Your task to perform on an android device: Search for "usb-a" on target.com, select the first entry, add it to the cart, then select checkout. Image 0: 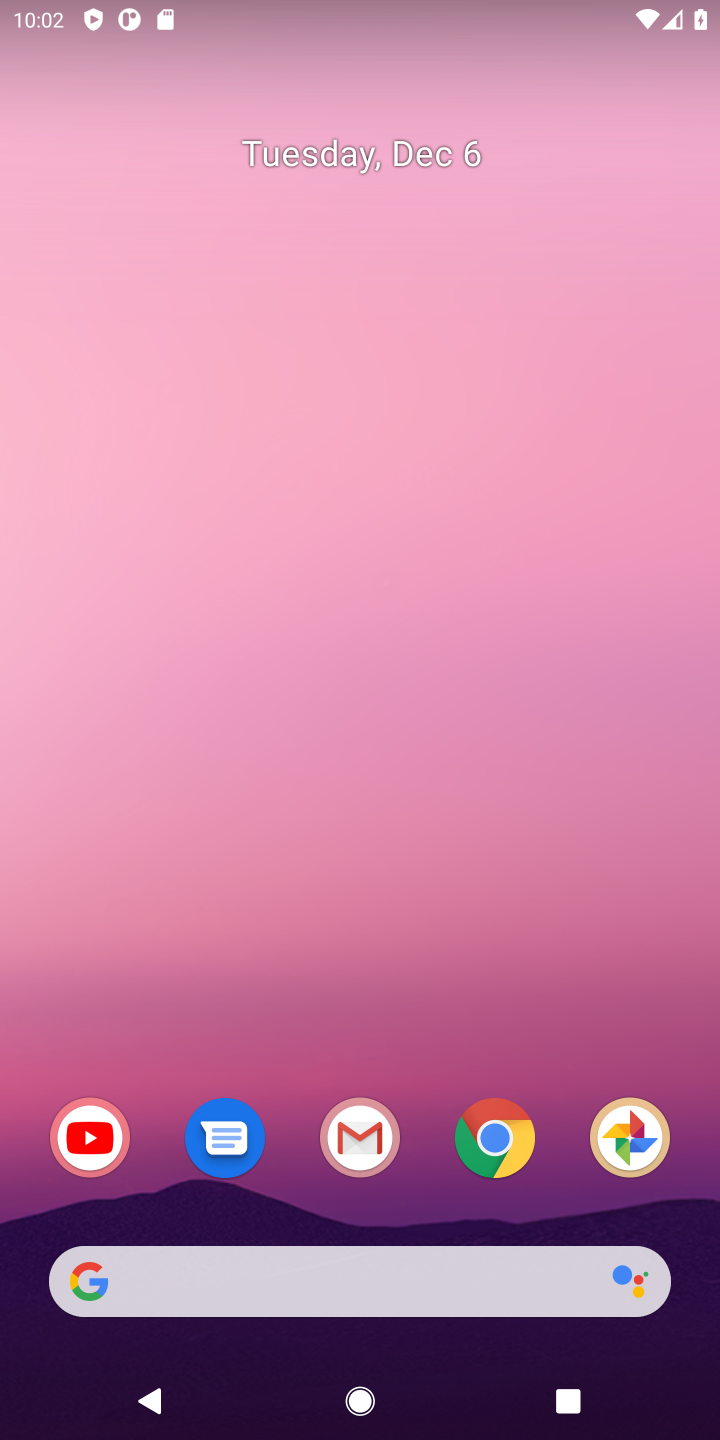
Step 0: click (510, 1140)
Your task to perform on an android device: Search for "usb-a" on target.com, select the first entry, add it to the cart, then select checkout. Image 1: 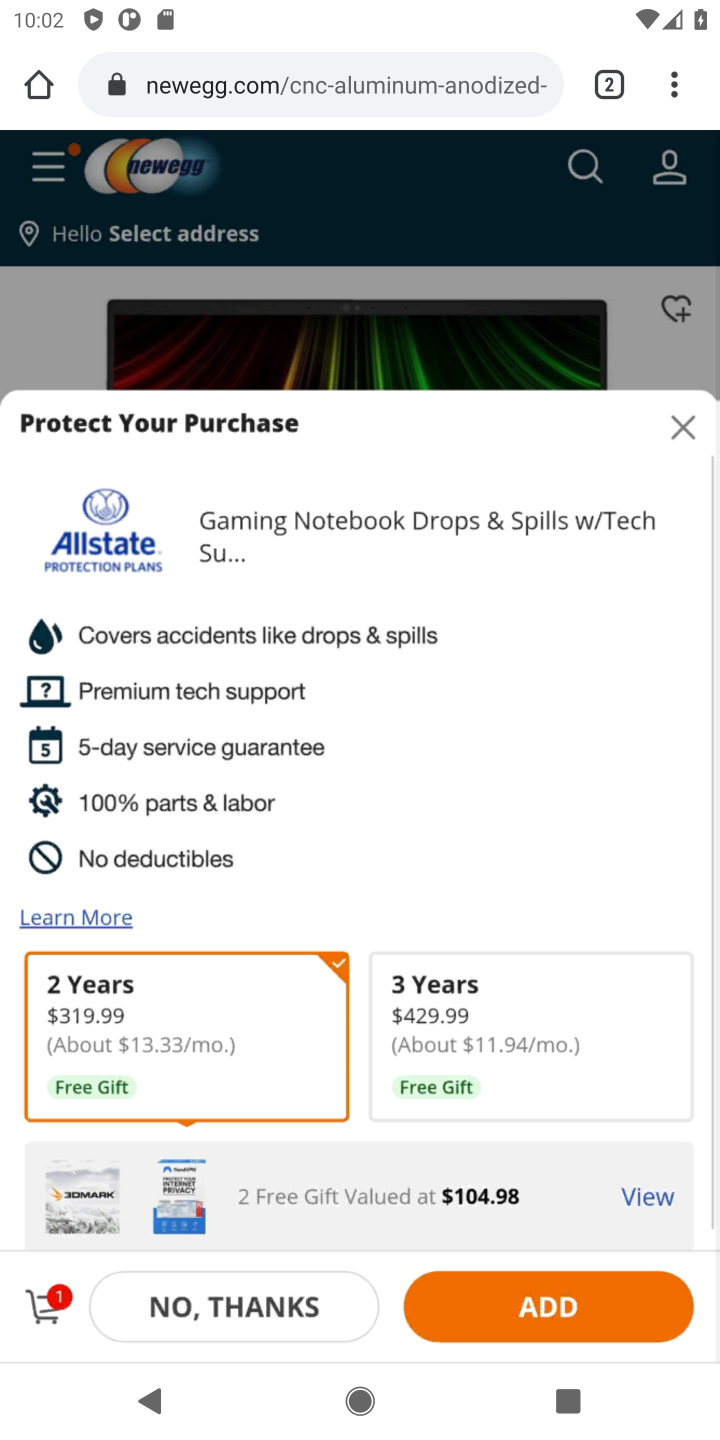
Step 1: click (278, 95)
Your task to perform on an android device: Search for "usb-a" on target.com, select the first entry, add it to the cart, then select checkout. Image 2: 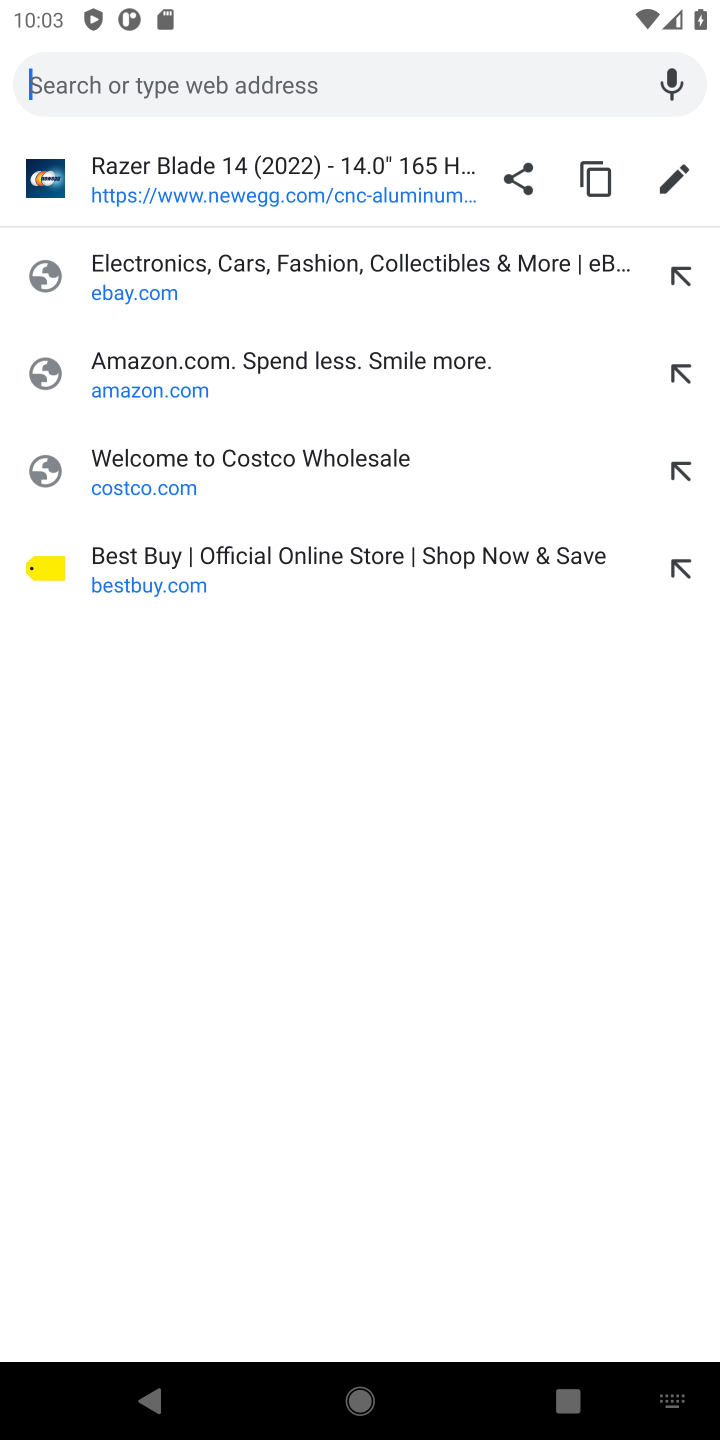
Step 2: type "target.com"
Your task to perform on an android device: Search for "usb-a" on target.com, select the first entry, add it to the cart, then select checkout. Image 3: 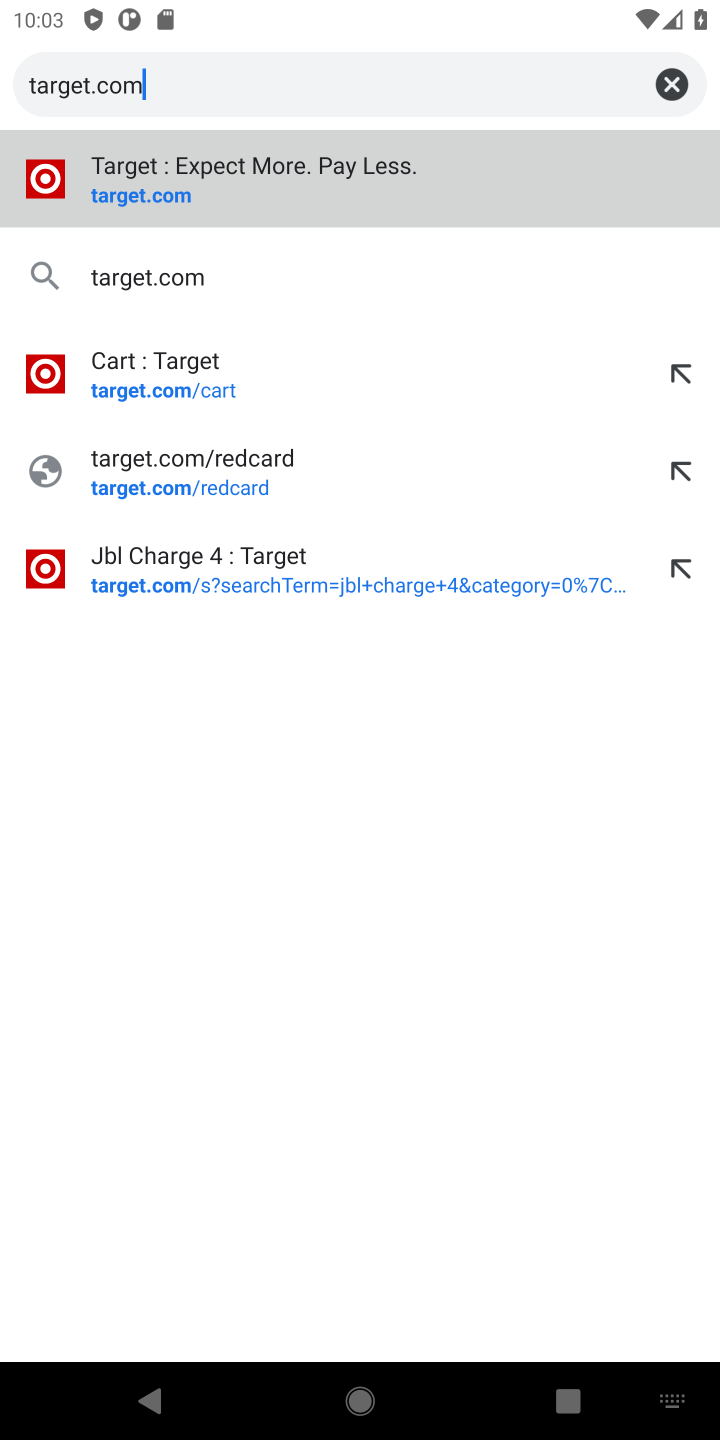
Step 3: click (109, 193)
Your task to perform on an android device: Search for "usb-a" on target.com, select the first entry, add it to the cart, then select checkout. Image 4: 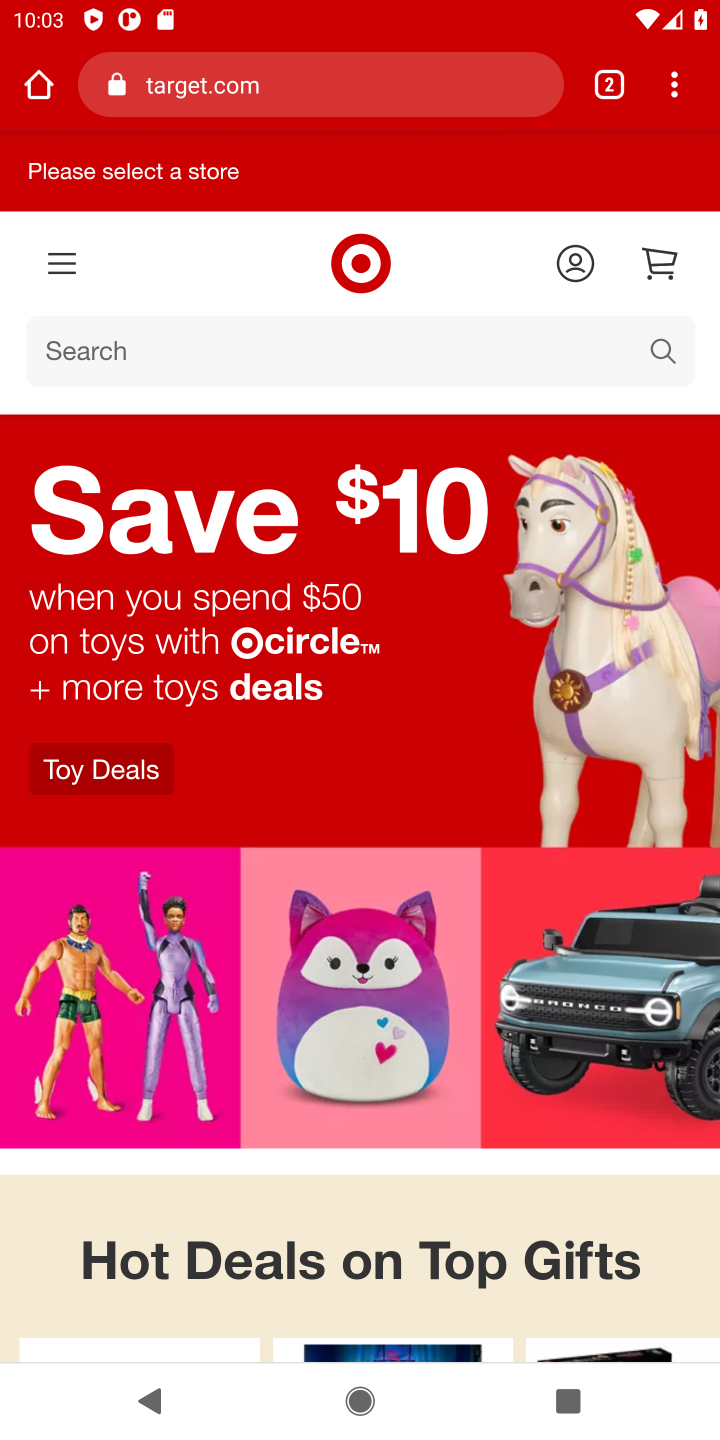
Step 4: click (75, 349)
Your task to perform on an android device: Search for "usb-a" on target.com, select the first entry, add it to the cart, then select checkout. Image 5: 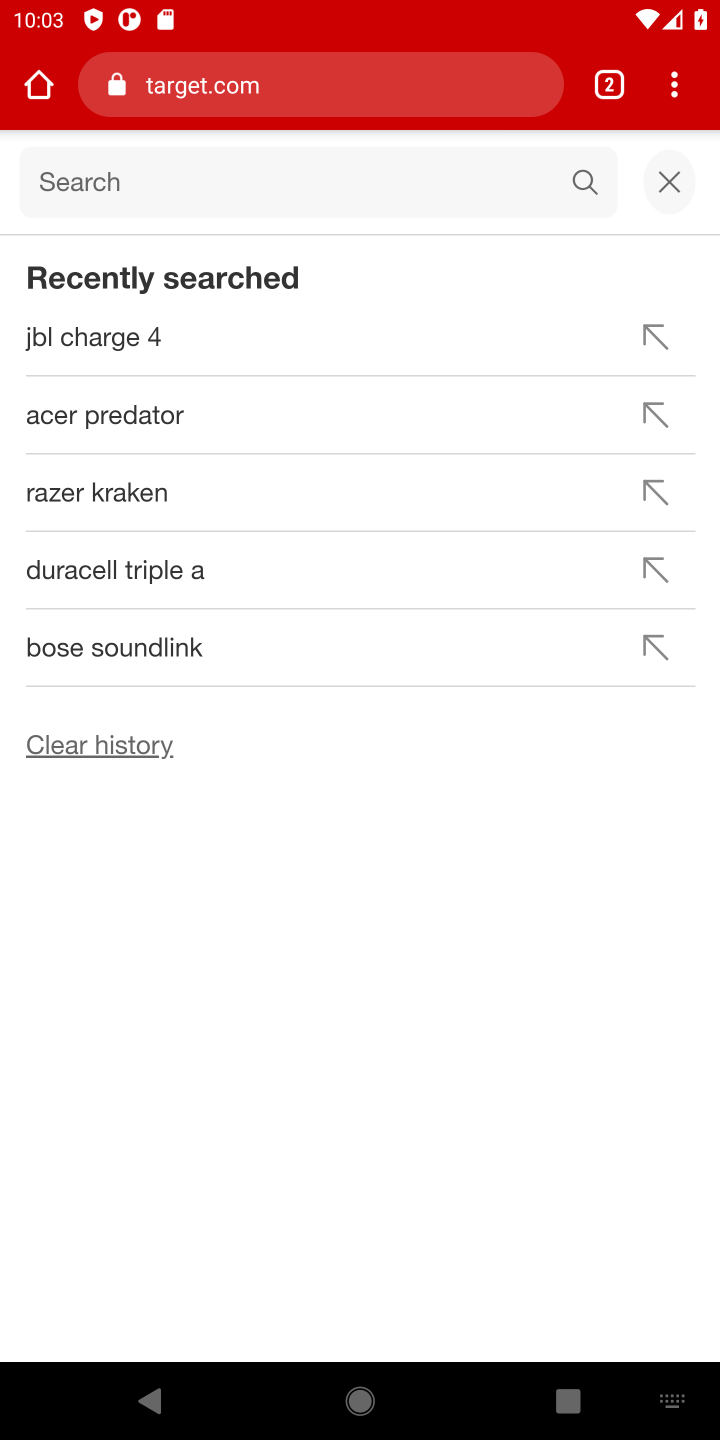
Step 5: type "usb-a"
Your task to perform on an android device: Search for "usb-a" on target.com, select the first entry, add it to the cart, then select checkout. Image 6: 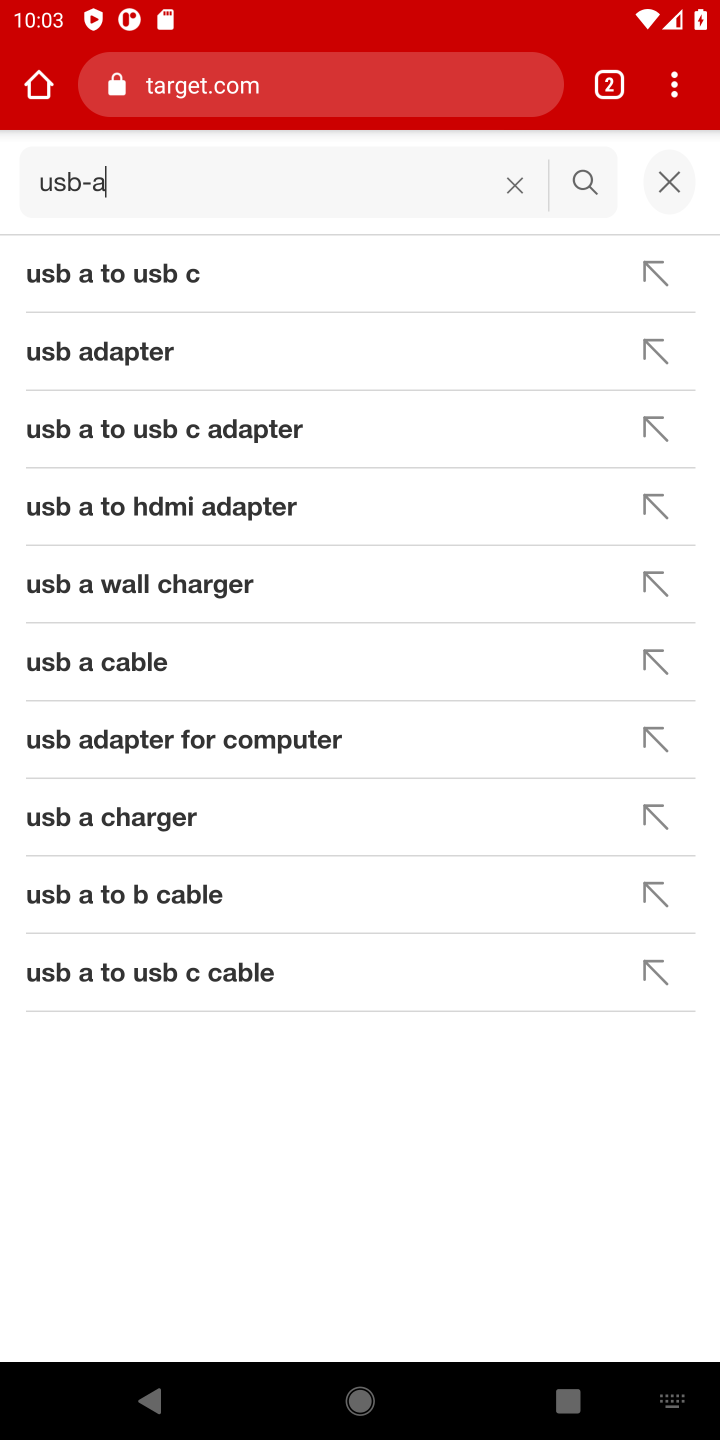
Step 6: click (588, 180)
Your task to perform on an android device: Search for "usb-a" on target.com, select the first entry, add it to the cart, then select checkout. Image 7: 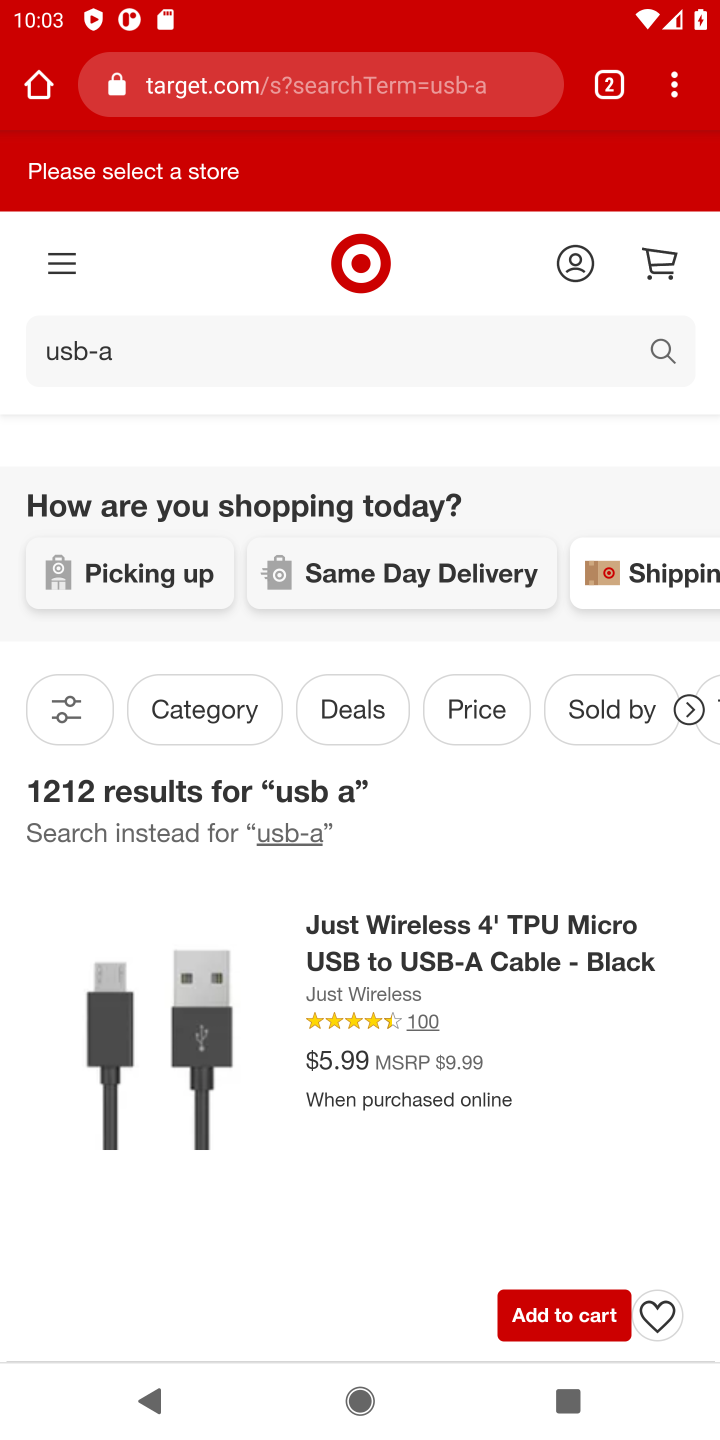
Step 7: click (555, 1315)
Your task to perform on an android device: Search for "usb-a" on target.com, select the first entry, add it to the cart, then select checkout. Image 8: 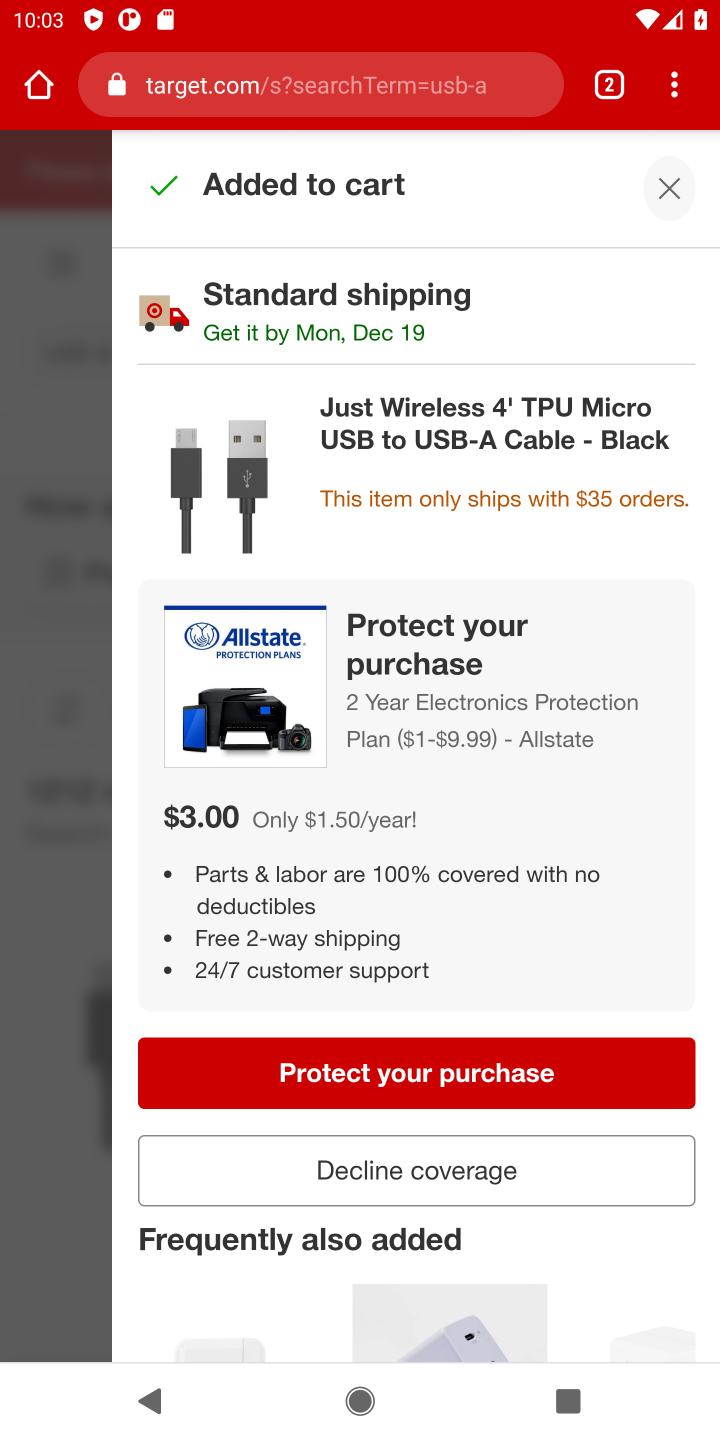
Step 8: click (655, 189)
Your task to perform on an android device: Search for "usb-a" on target.com, select the first entry, add it to the cart, then select checkout. Image 9: 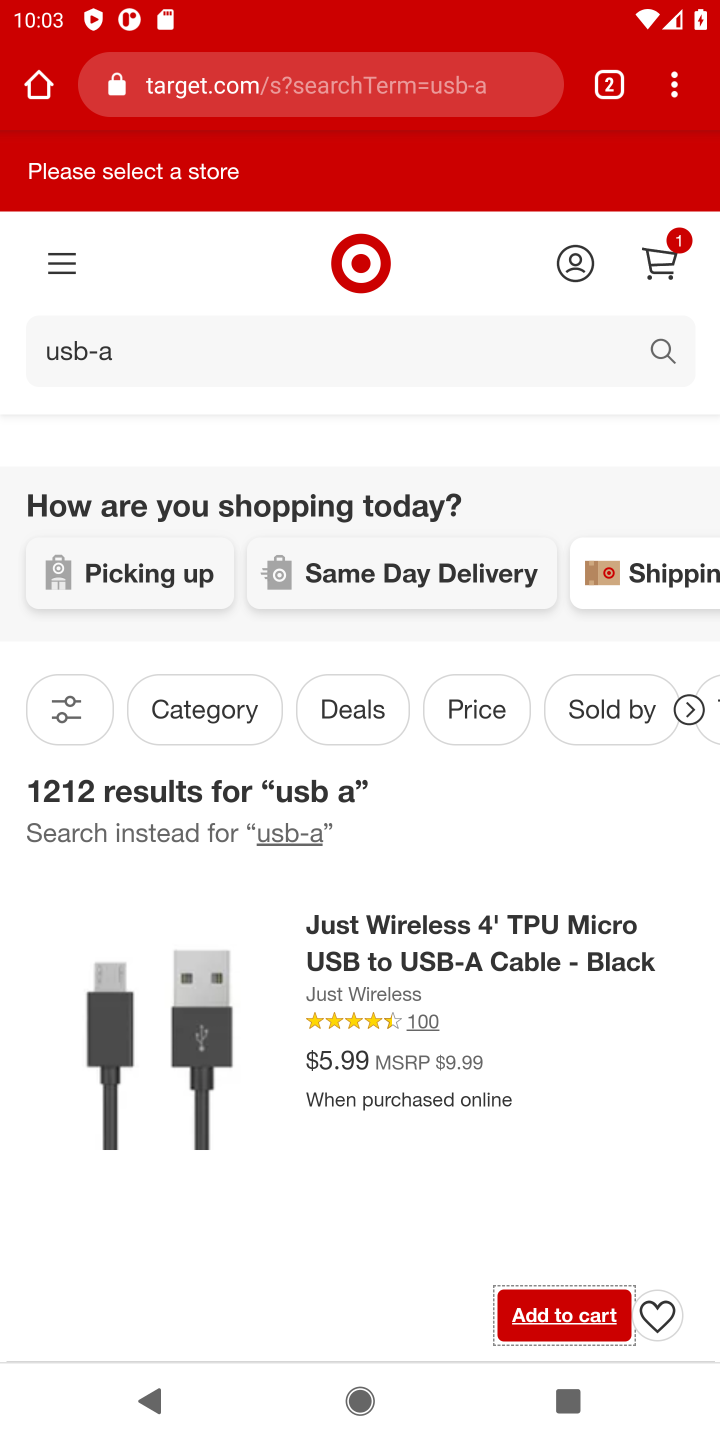
Step 9: click (669, 267)
Your task to perform on an android device: Search for "usb-a" on target.com, select the first entry, add it to the cart, then select checkout. Image 10: 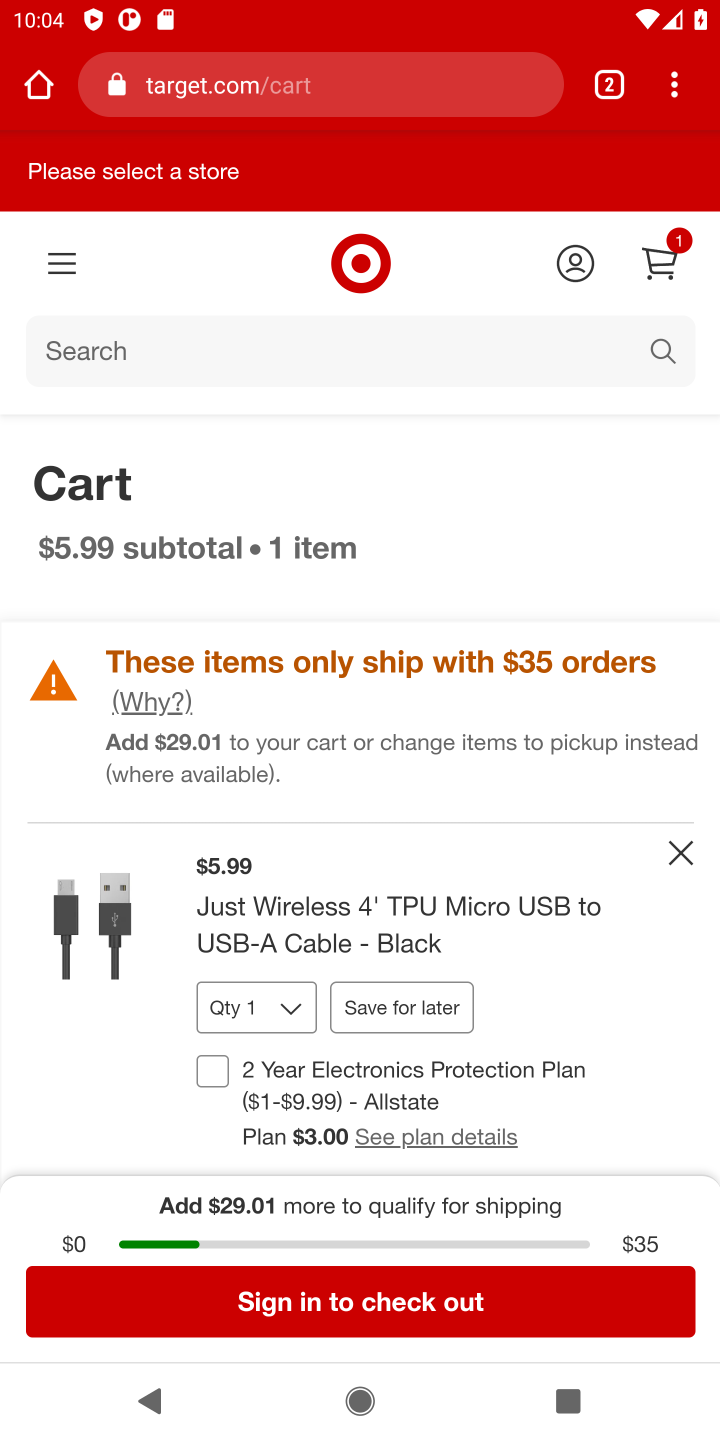
Step 10: click (316, 1304)
Your task to perform on an android device: Search for "usb-a" on target.com, select the first entry, add it to the cart, then select checkout. Image 11: 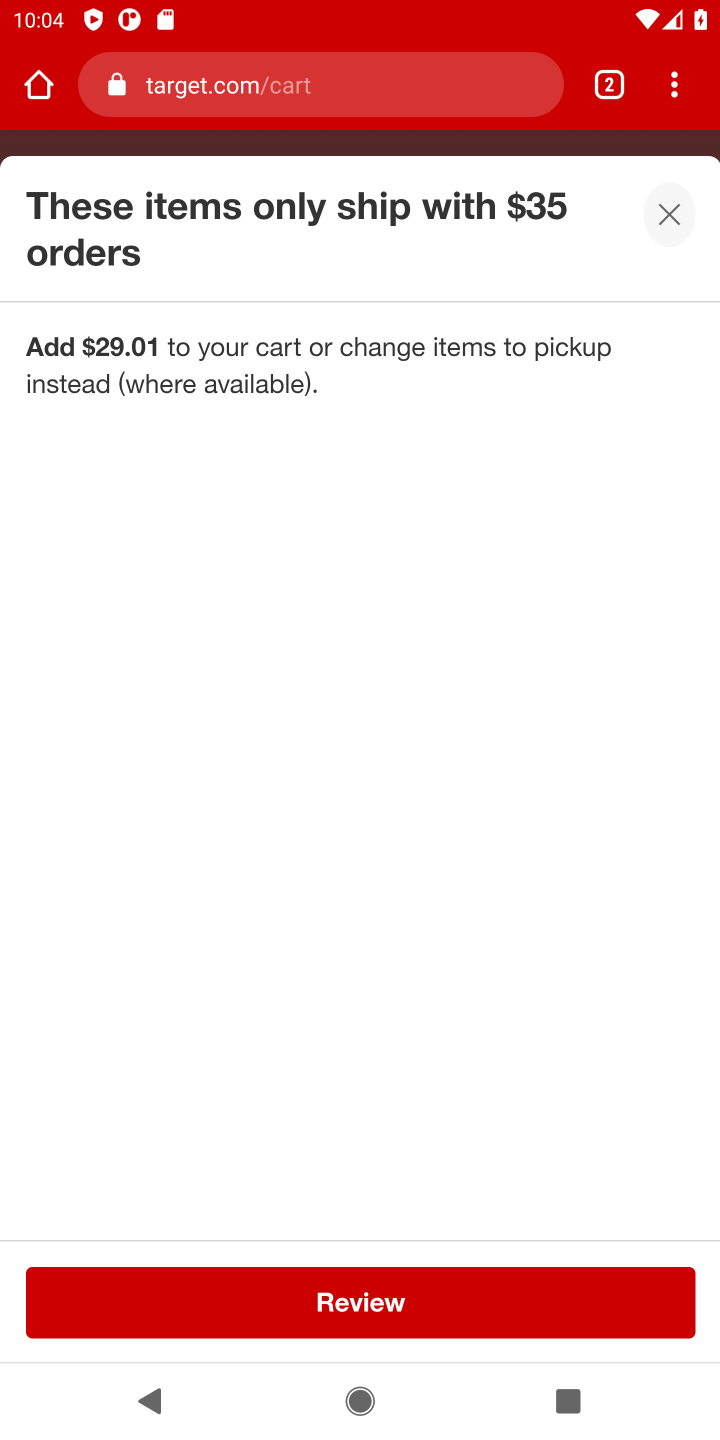
Step 11: task complete